Your task to perform on an android device: show emergency info Image 0: 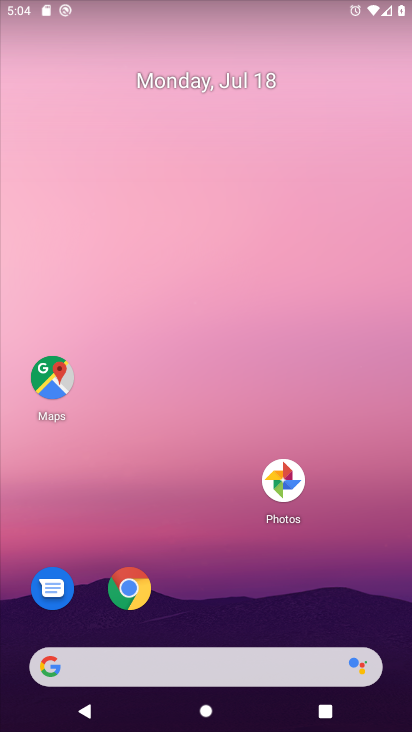
Step 0: drag from (398, 629) to (187, 307)
Your task to perform on an android device: show emergency info Image 1: 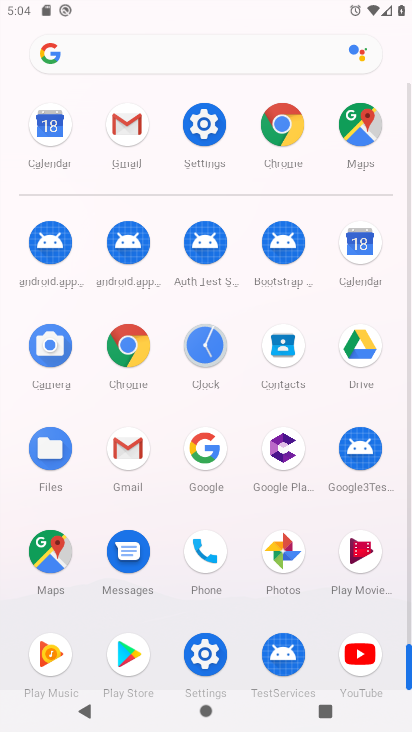
Step 1: click (206, 96)
Your task to perform on an android device: show emergency info Image 2: 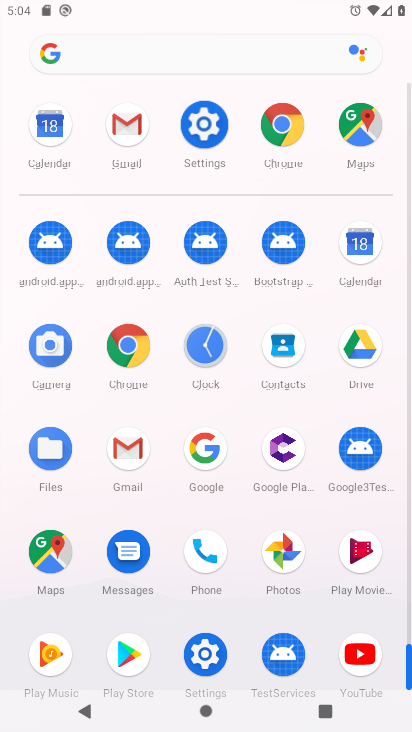
Step 2: click (200, 129)
Your task to perform on an android device: show emergency info Image 3: 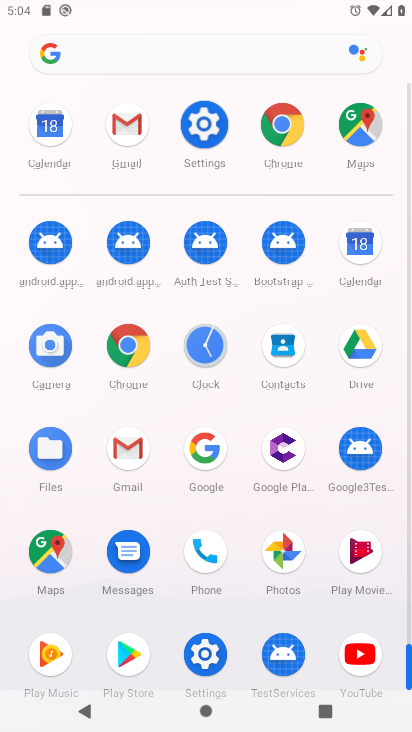
Step 3: click (200, 129)
Your task to perform on an android device: show emergency info Image 4: 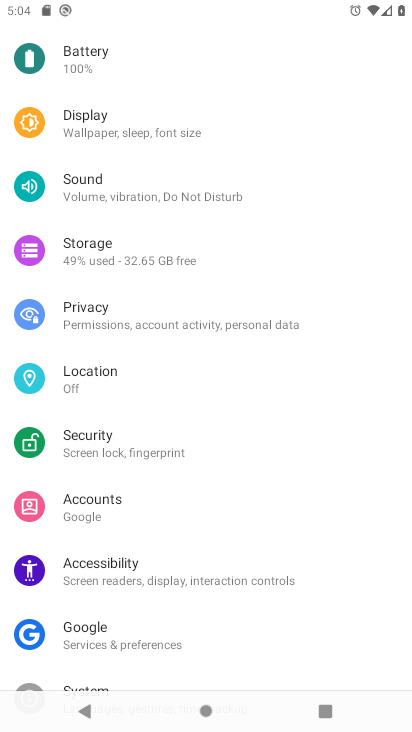
Step 4: drag from (146, 618) to (124, 249)
Your task to perform on an android device: show emergency info Image 5: 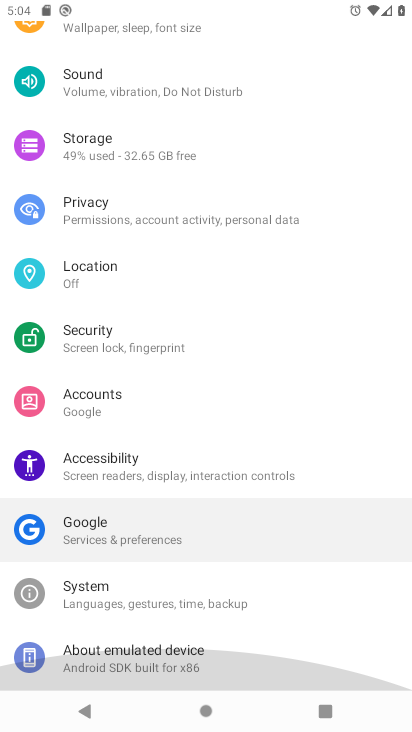
Step 5: drag from (142, 484) to (142, 297)
Your task to perform on an android device: show emergency info Image 6: 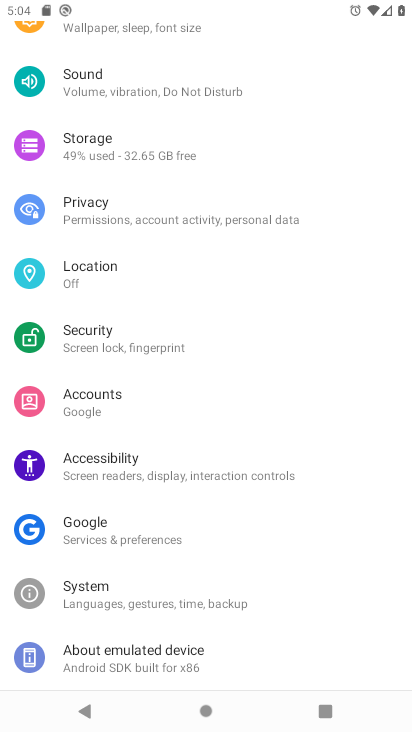
Step 6: drag from (173, 577) to (133, 427)
Your task to perform on an android device: show emergency info Image 7: 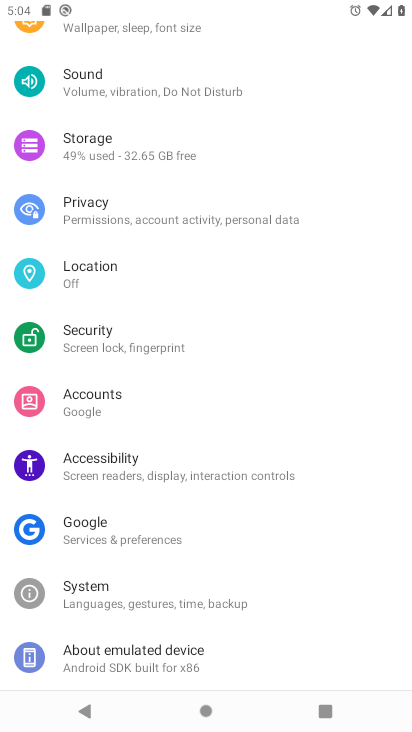
Step 7: click (141, 655)
Your task to perform on an android device: show emergency info Image 8: 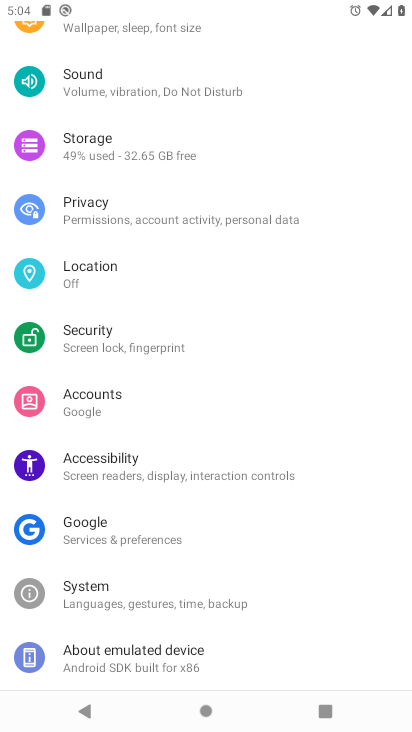
Step 8: click (140, 656)
Your task to perform on an android device: show emergency info Image 9: 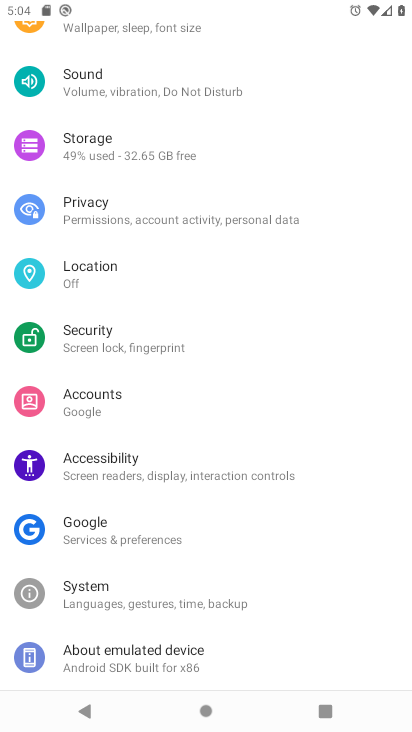
Step 9: click (149, 663)
Your task to perform on an android device: show emergency info Image 10: 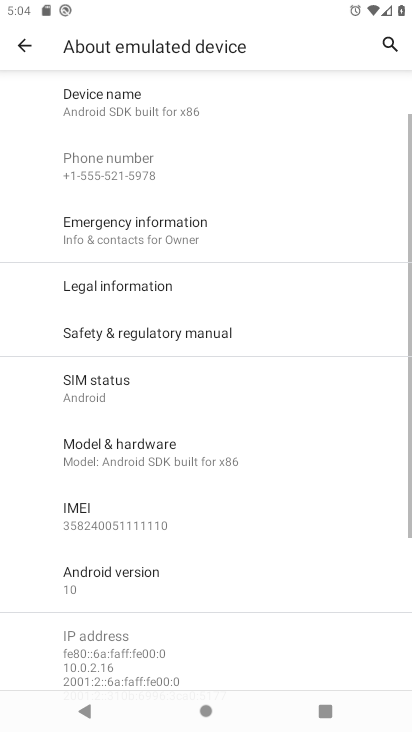
Step 10: click (113, 235)
Your task to perform on an android device: show emergency info Image 11: 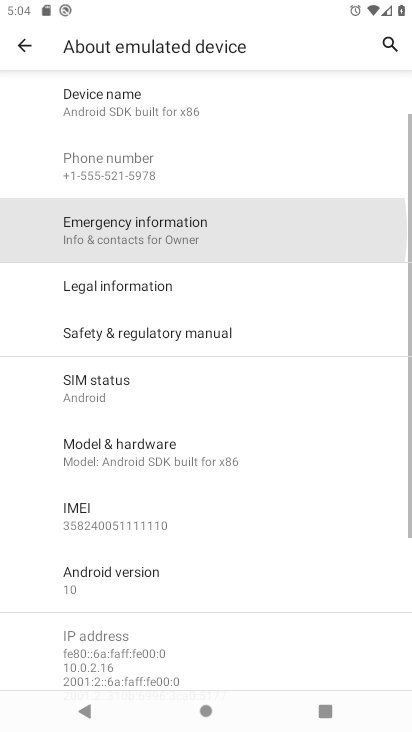
Step 11: click (113, 235)
Your task to perform on an android device: show emergency info Image 12: 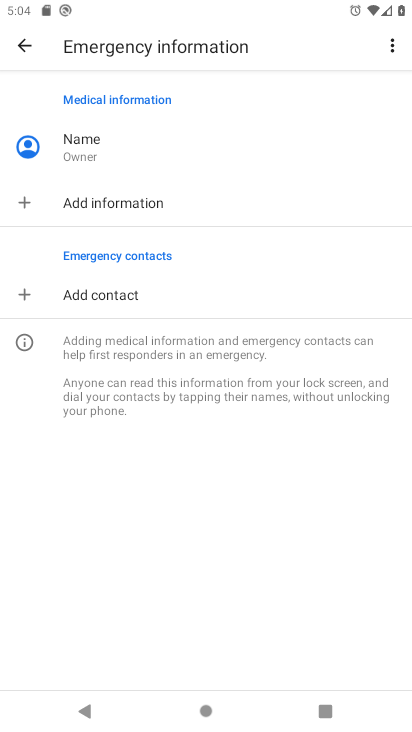
Step 12: task complete